Your task to perform on an android device: change keyboard looks Image 0: 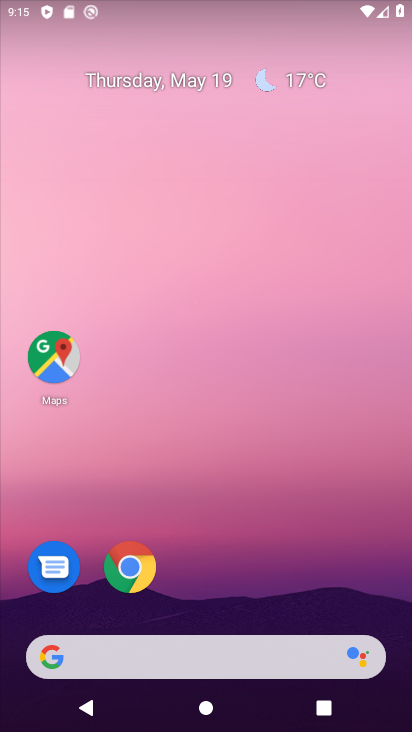
Step 0: drag from (352, 599) to (277, 118)
Your task to perform on an android device: change keyboard looks Image 1: 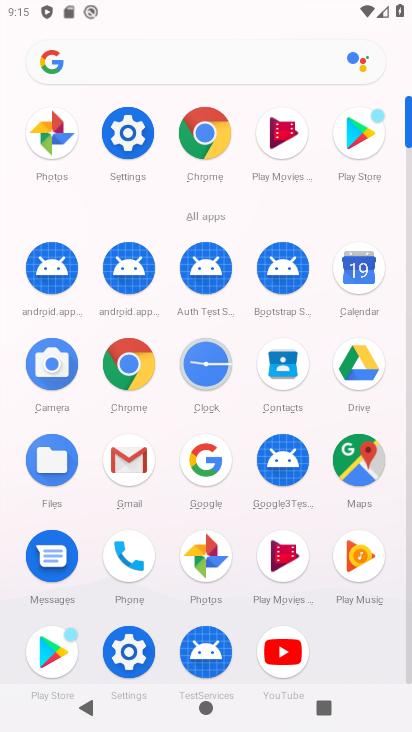
Step 1: click (145, 656)
Your task to perform on an android device: change keyboard looks Image 2: 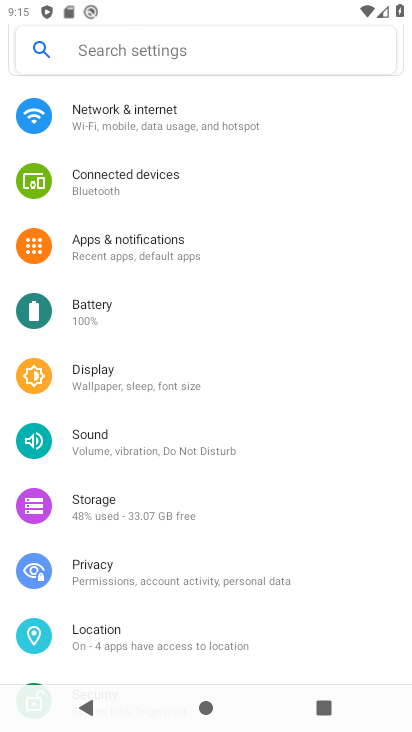
Step 2: drag from (295, 632) to (306, 4)
Your task to perform on an android device: change keyboard looks Image 3: 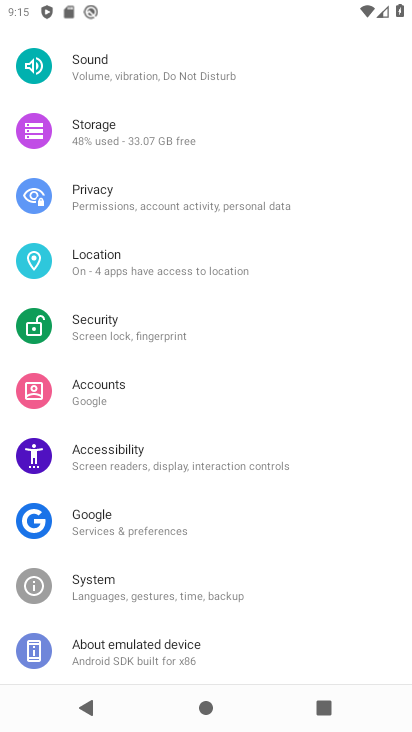
Step 3: click (132, 596)
Your task to perform on an android device: change keyboard looks Image 4: 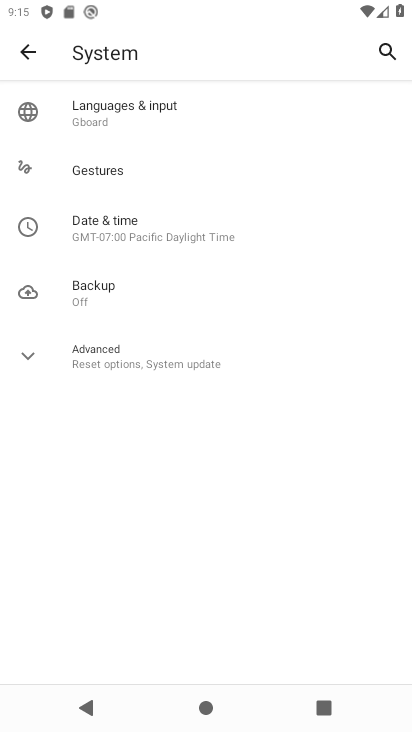
Step 4: click (165, 110)
Your task to perform on an android device: change keyboard looks Image 5: 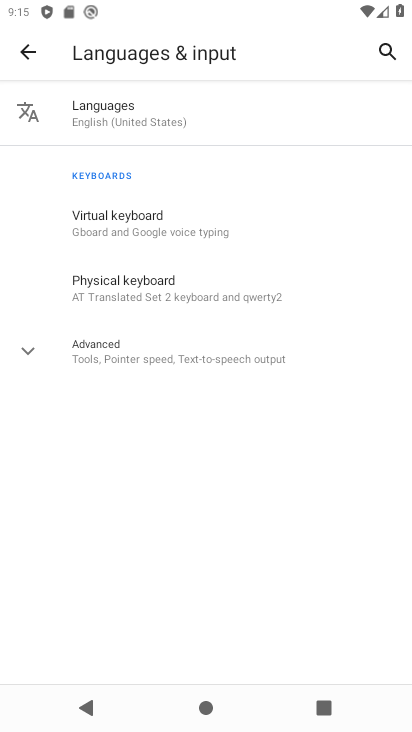
Step 5: click (165, 221)
Your task to perform on an android device: change keyboard looks Image 6: 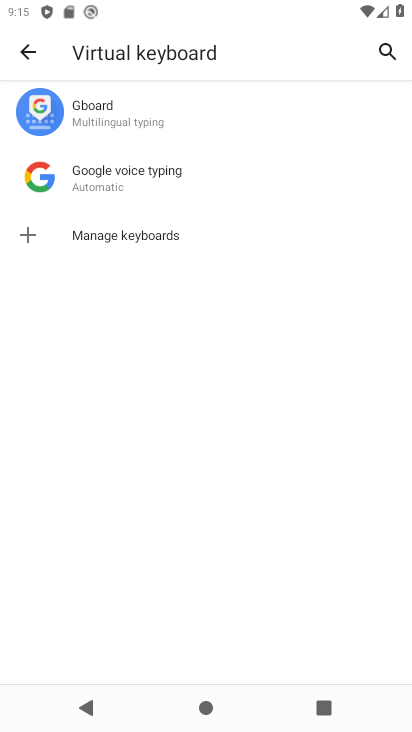
Step 6: click (144, 103)
Your task to perform on an android device: change keyboard looks Image 7: 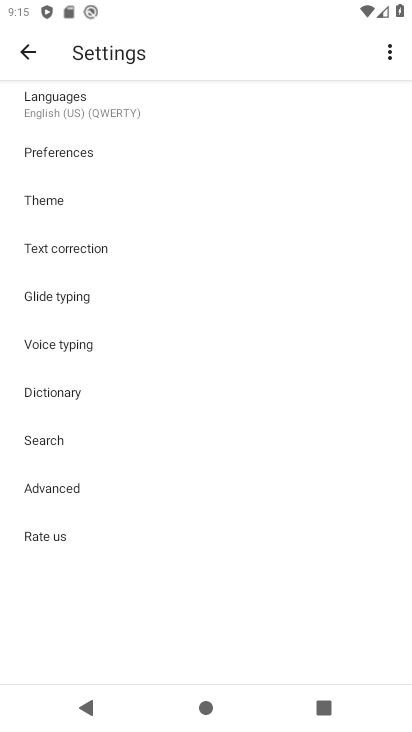
Step 7: click (82, 188)
Your task to perform on an android device: change keyboard looks Image 8: 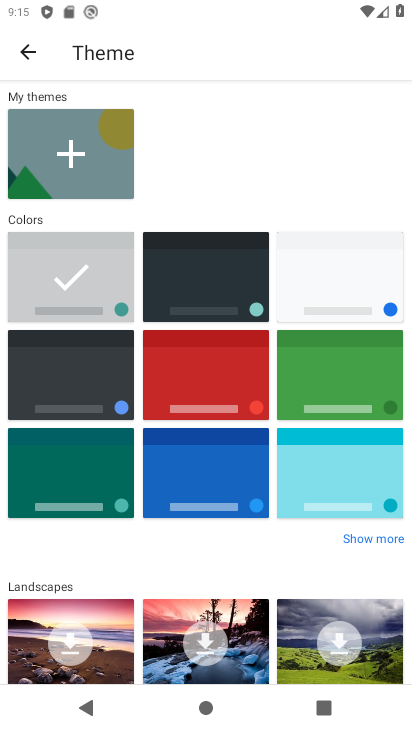
Step 8: click (178, 310)
Your task to perform on an android device: change keyboard looks Image 9: 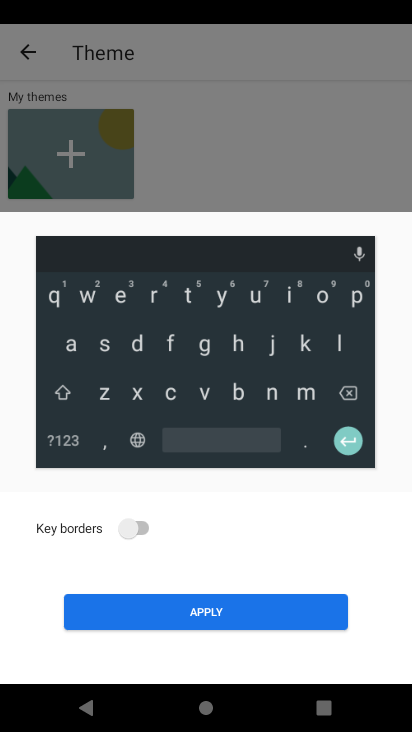
Step 9: click (302, 623)
Your task to perform on an android device: change keyboard looks Image 10: 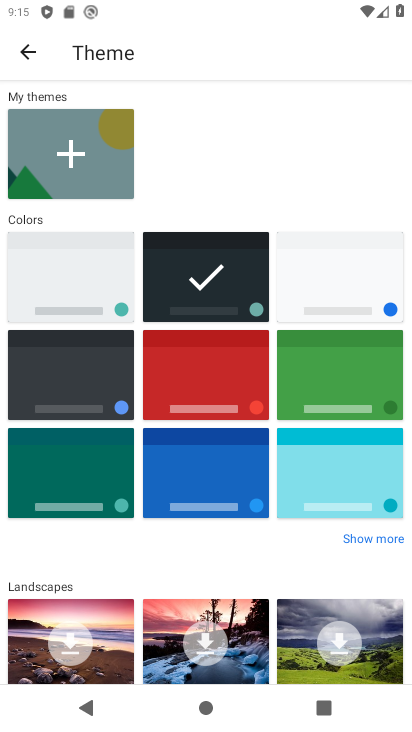
Step 10: task complete